Your task to perform on an android device: turn pop-ups off in chrome Image 0: 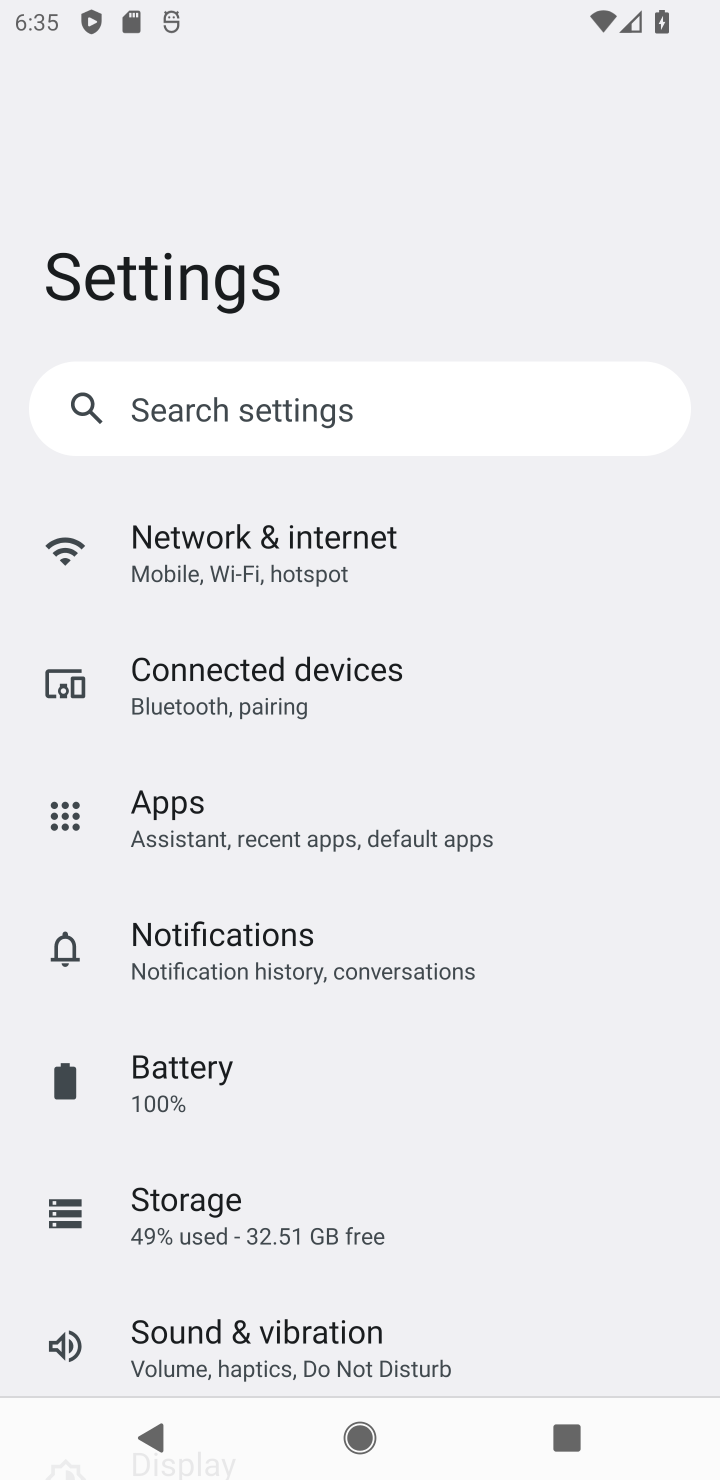
Step 0: press home button
Your task to perform on an android device: turn pop-ups off in chrome Image 1: 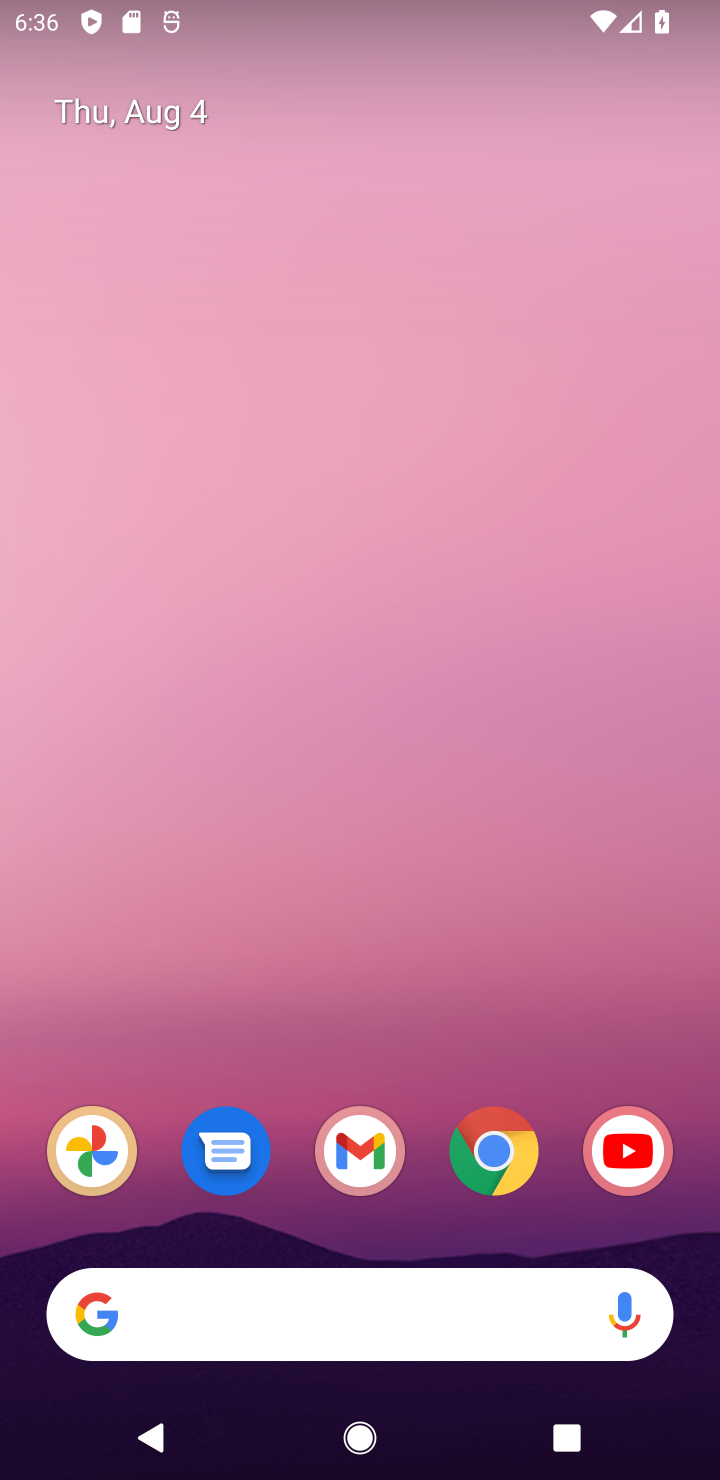
Step 1: click (555, 1149)
Your task to perform on an android device: turn pop-ups off in chrome Image 2: 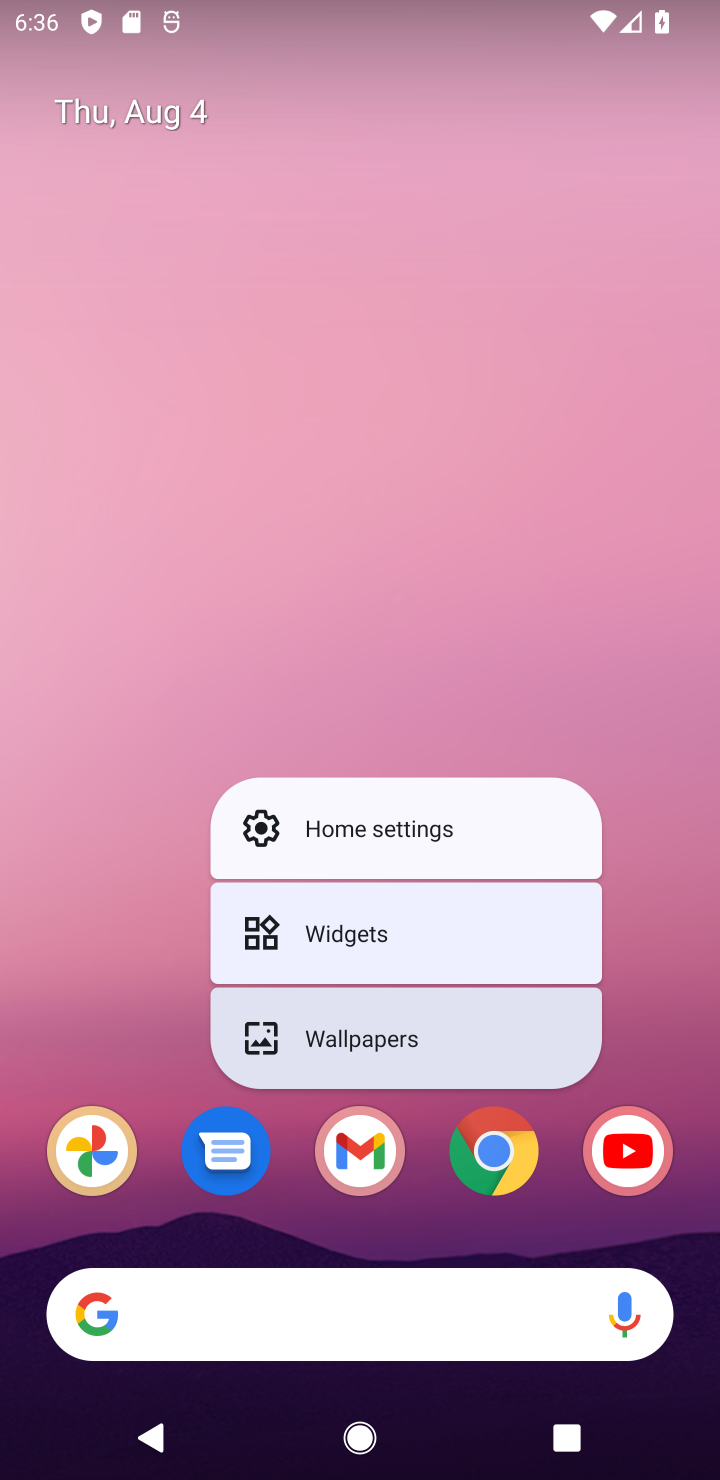
Step 2: click (516, 1161)
Your task to perform on an android device: turn pop-ups off in chrome Image 3: 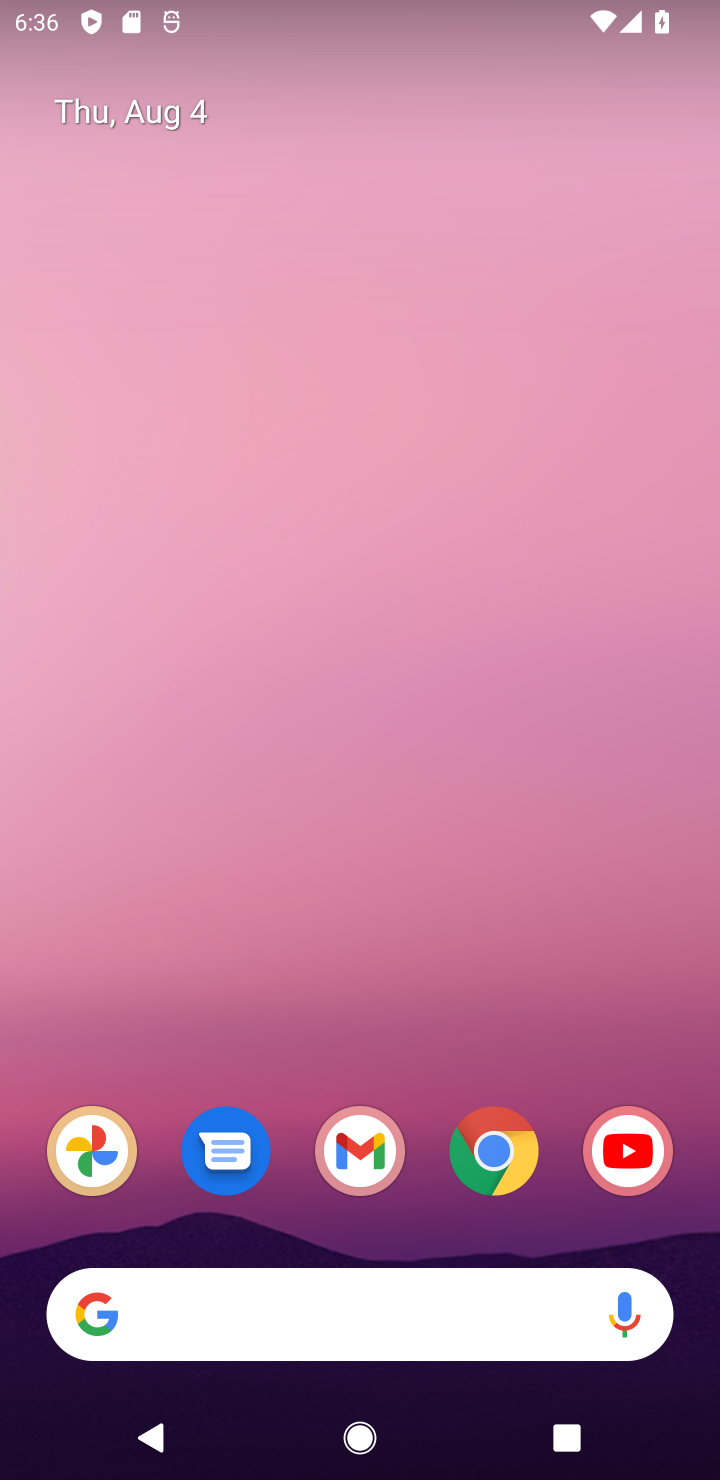
Step 3: click (512, 1161)
Your task to perform on an android device: turn pop-ups off in chrome Image 4: 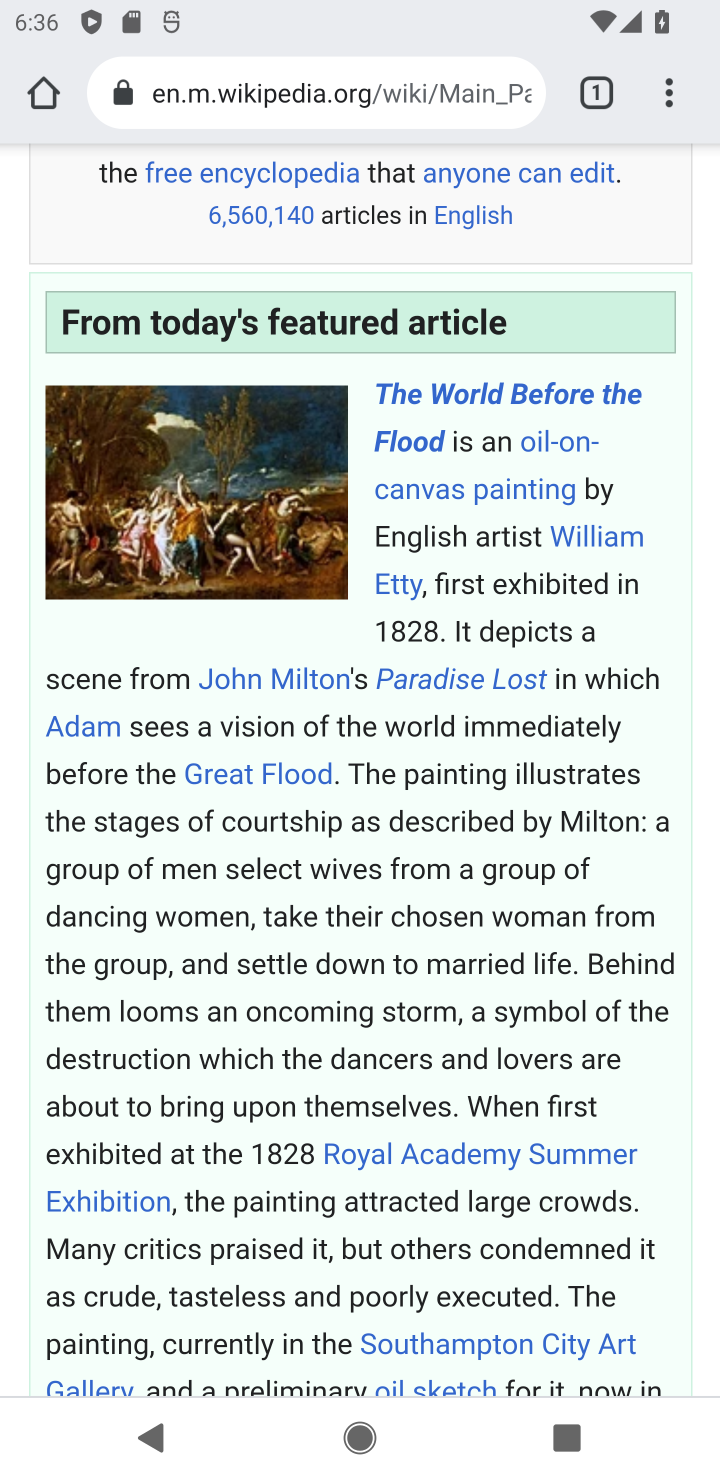
Step 4: drag from (588, 414) to (588, 831)
Your task to perform on an android device: turn pop-ups off in chrome Image 5: 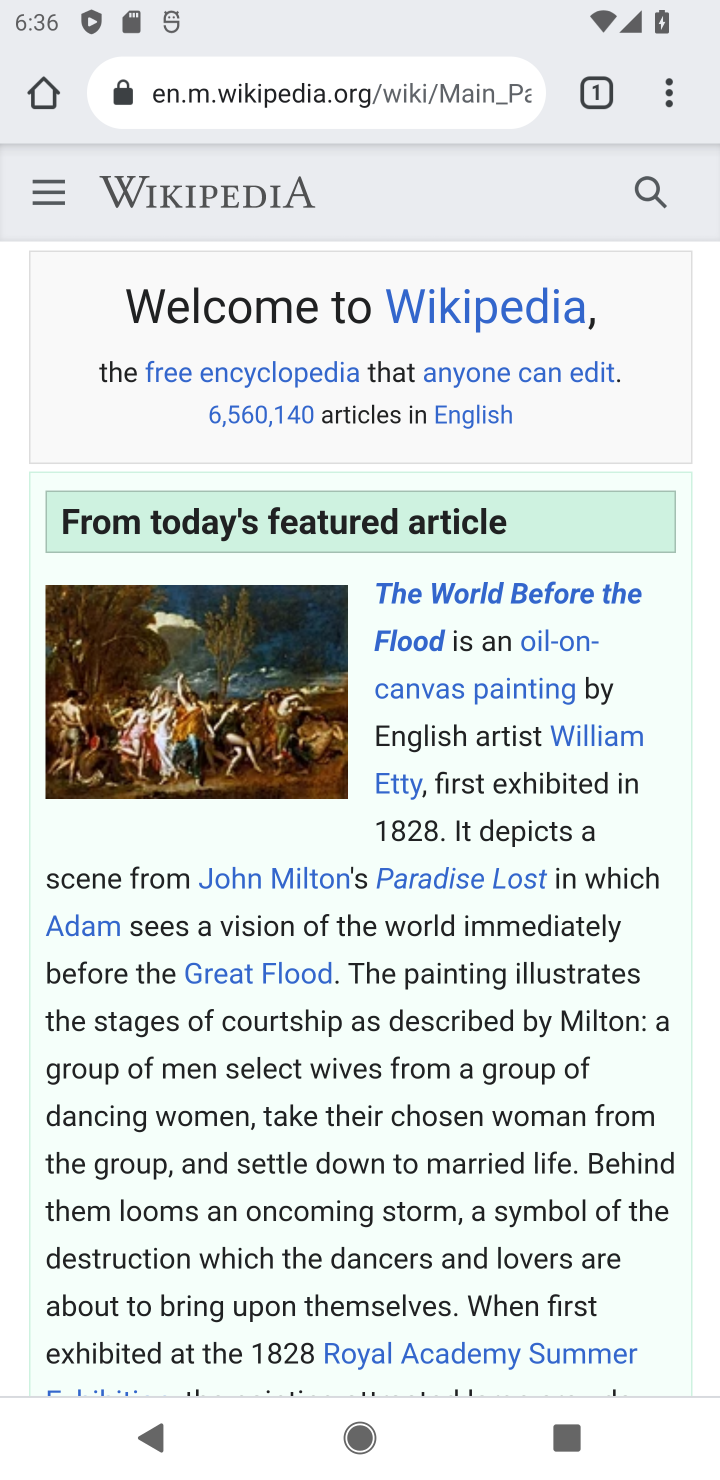
Step 5: click (661, 85)
Your task to perform on an android device: turn pop-ups off in chrome Image 6: 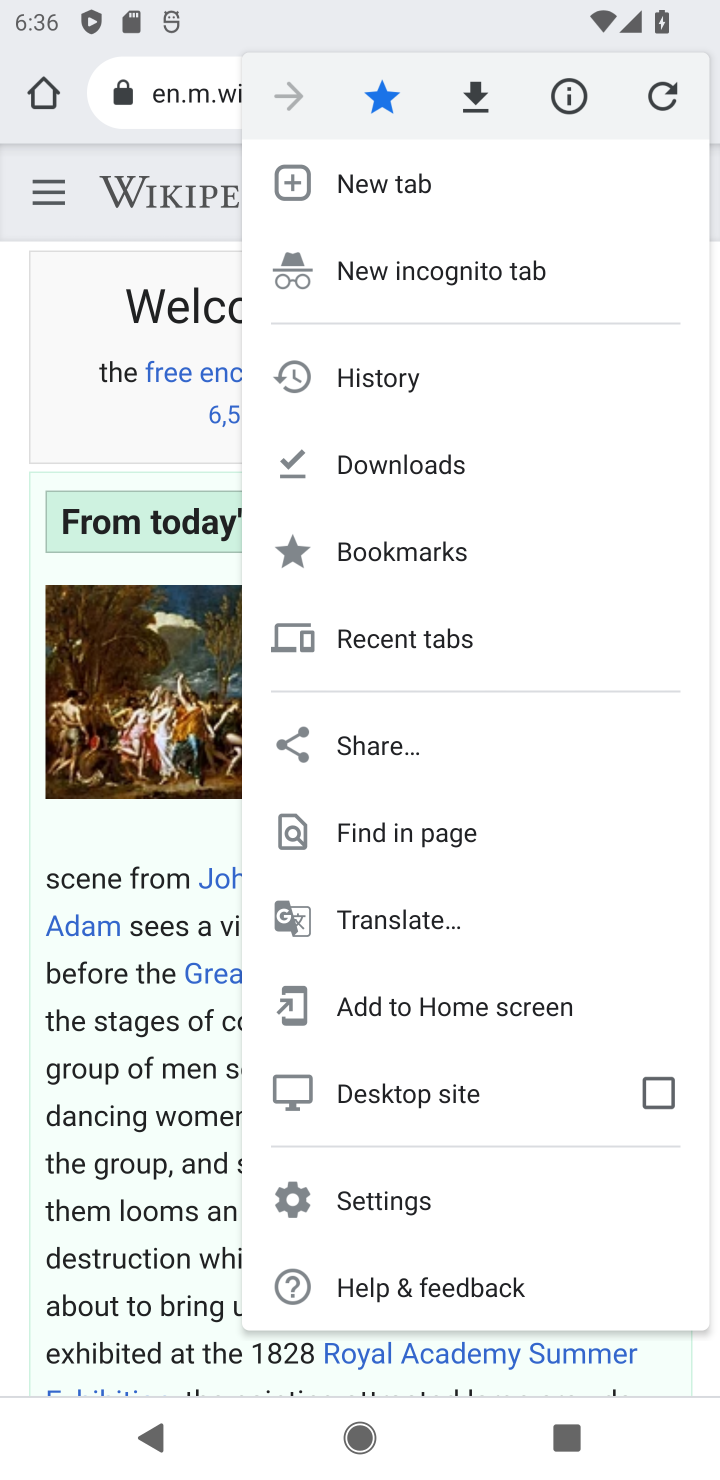
Step 6: click (366, 1206)
Your task to perform on an android device: turn pop-ups off in chrome Image 7: 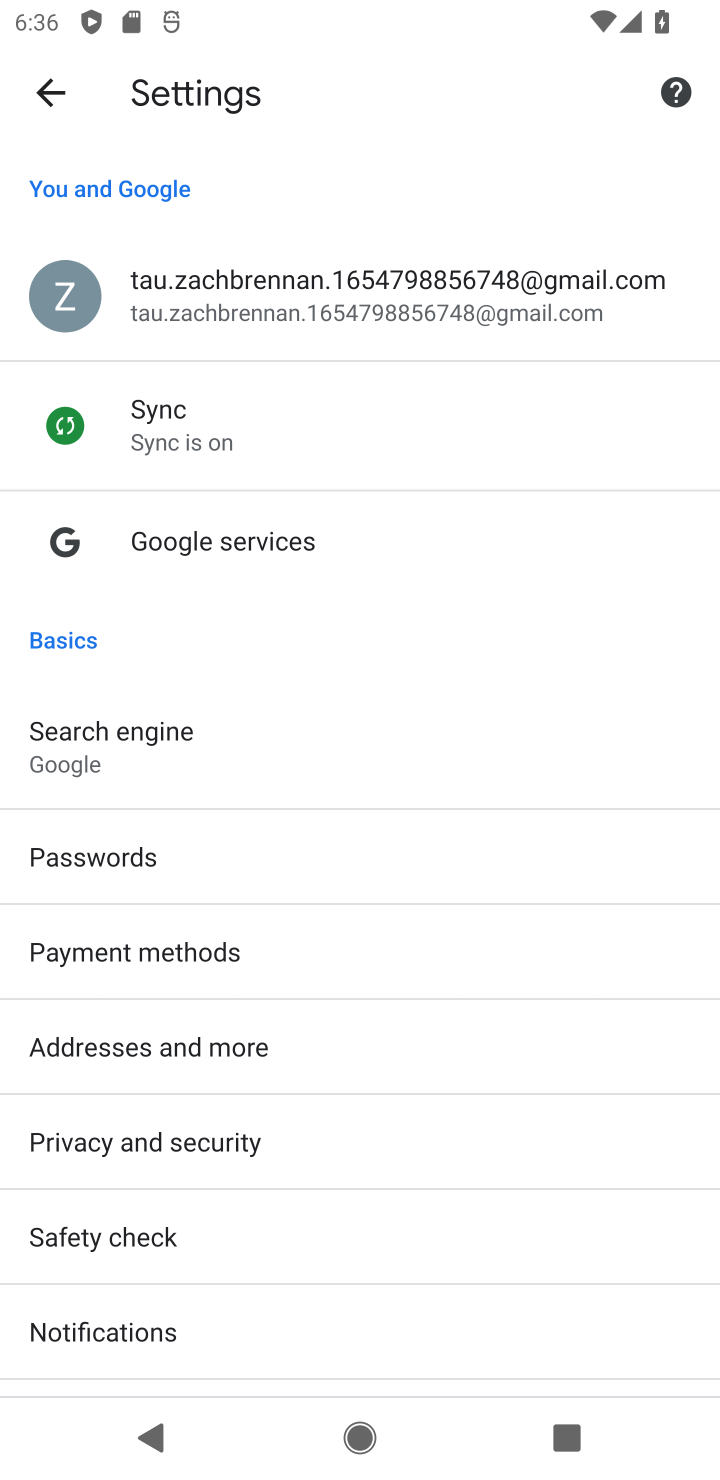
Step 7: drag from (292, 1115) to (227, 475)
Your task to perform on an android device: turn pop-ups off in chrome Image 8: 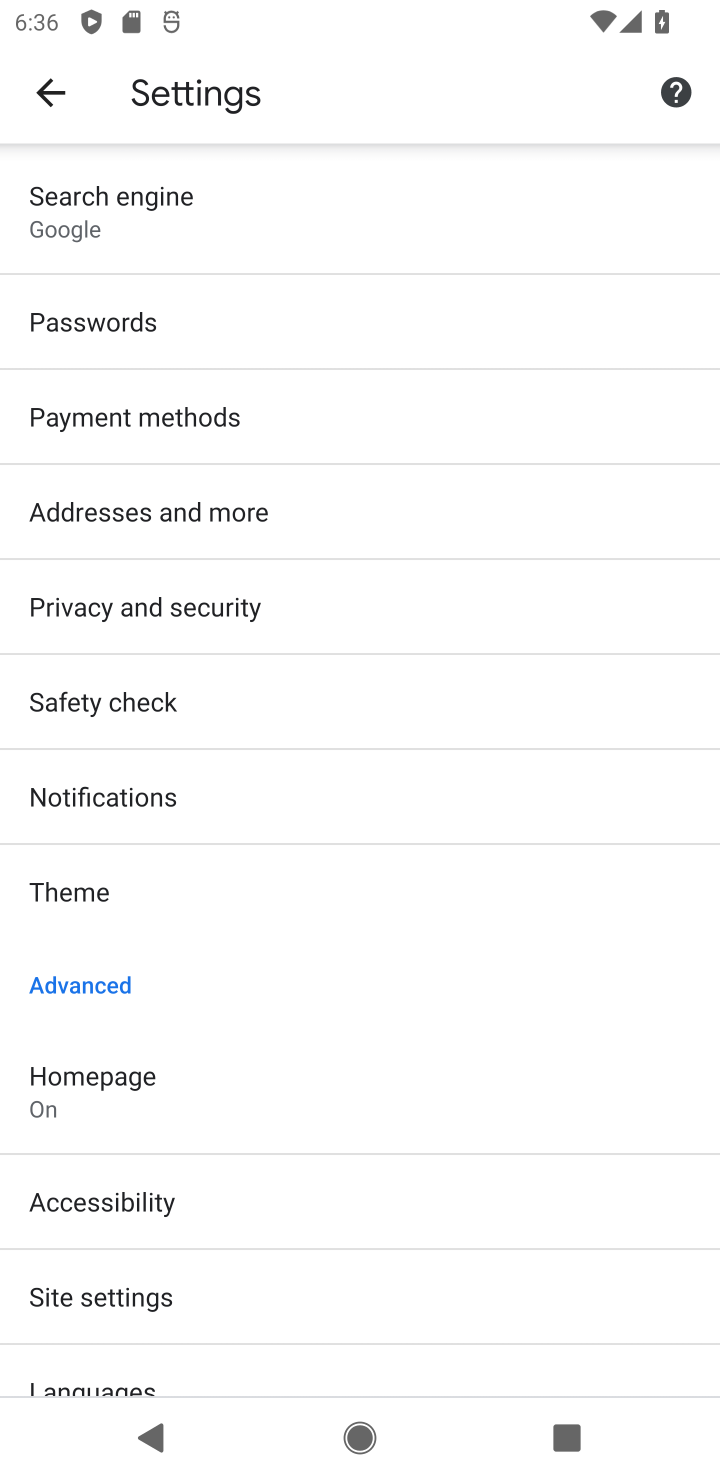
Step 8: click (134, 1301)
Your task to perform on an android device: turn pop-ups off in chrome Image 9: 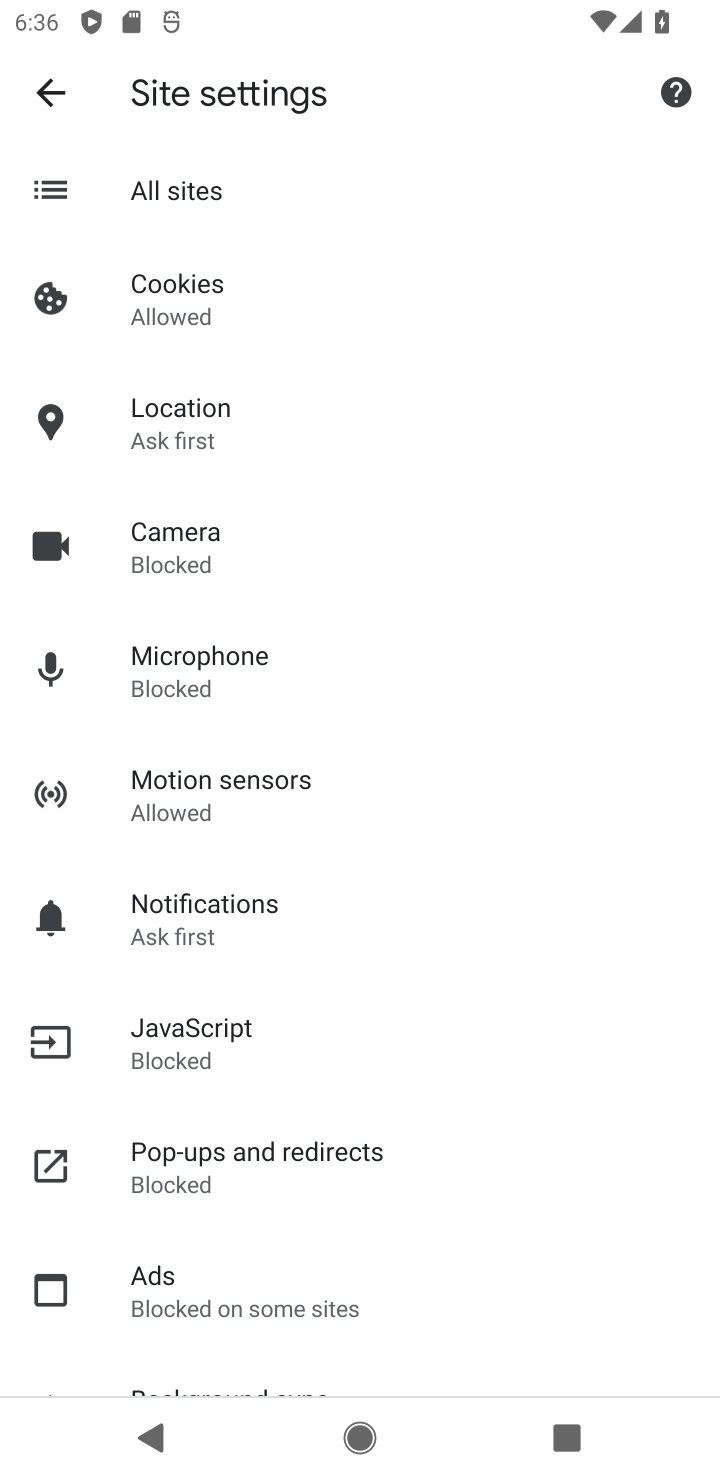
Step 9: click (242, 1161)
Your task to perform on an android device: turn pop-ups off in chrome Image 10: 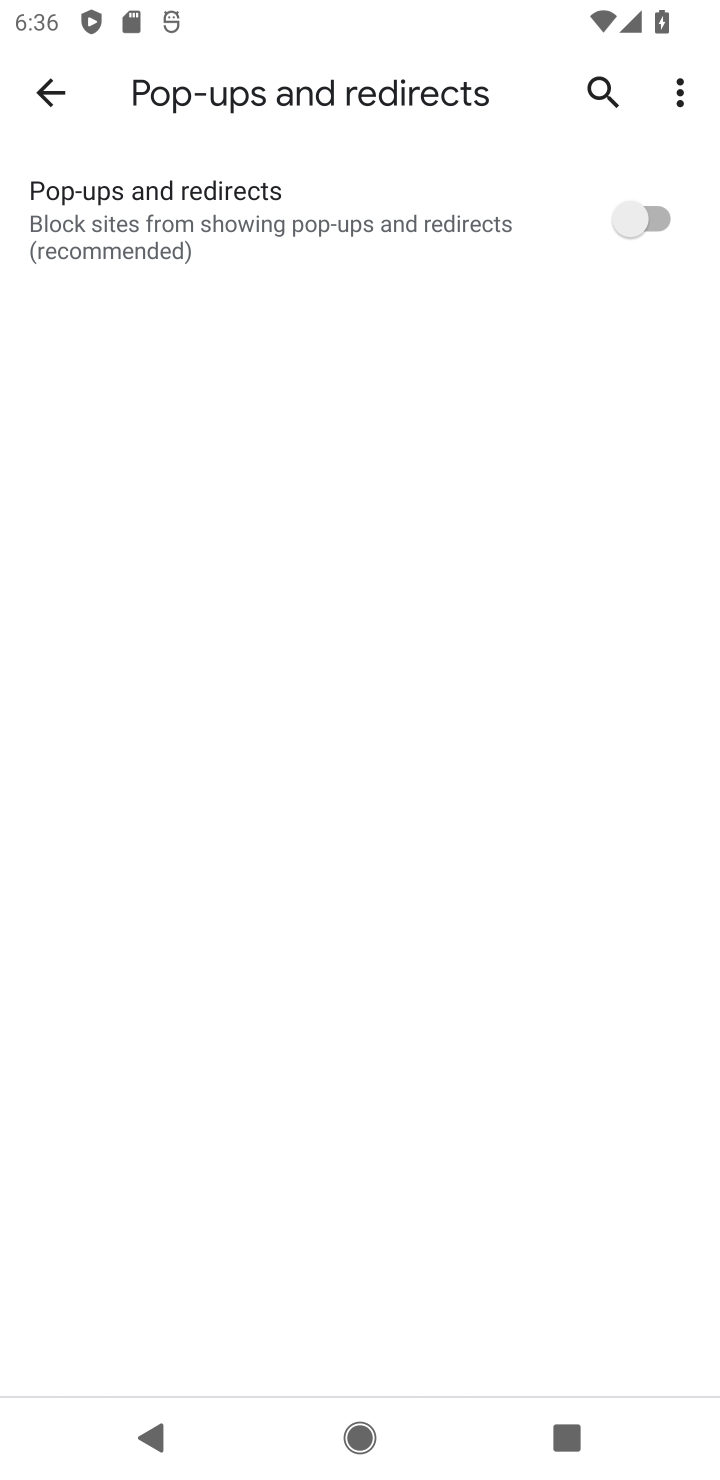
Step 10: task complete